Your task to perform on an android device: Find coffee shops on Maps Image 0: 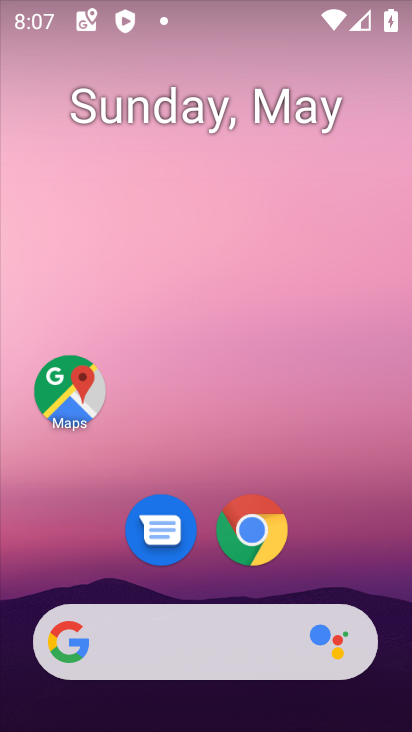
Step 0: click (62, 397)
Your task to perform on an android device: Find coffee shops on Maps Image 1: 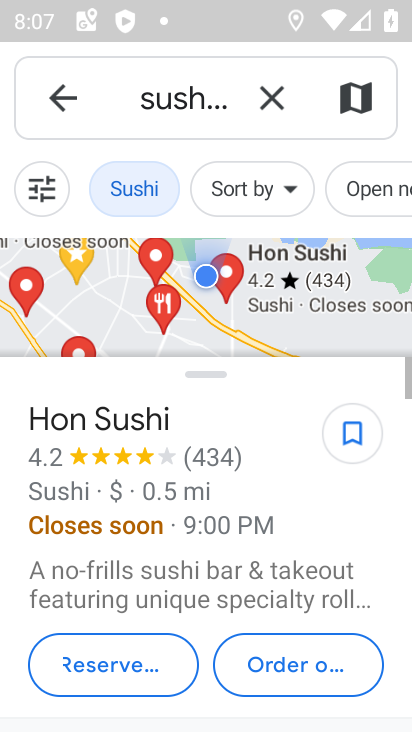
Step 1: click (267, 92)
Your task to perform on an android device: Find coffee shops on Maps Image 2: 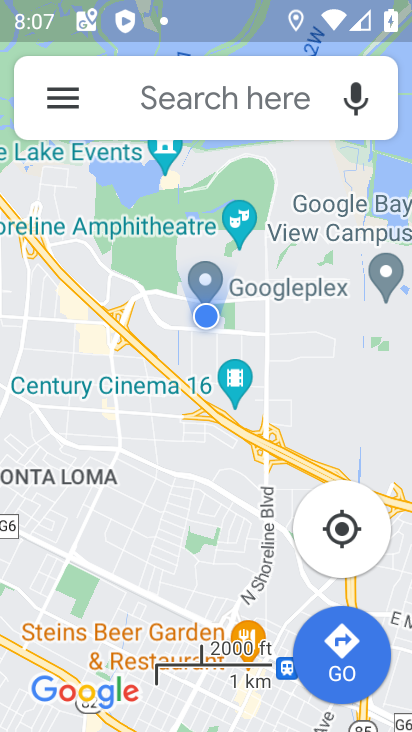
Step 2: click (137, 98)
Your task to perform on an android device: Find coffee shops on Maps Image 3: 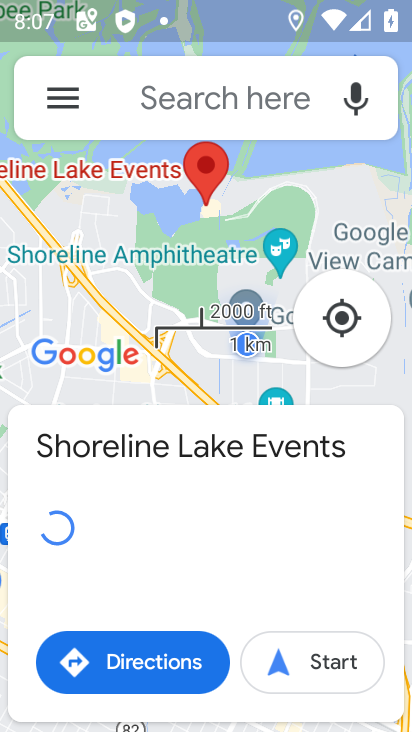
Step 3: click (167, 104)
Your task to perform on an android device: Find coffee shops on Maps Image 4: 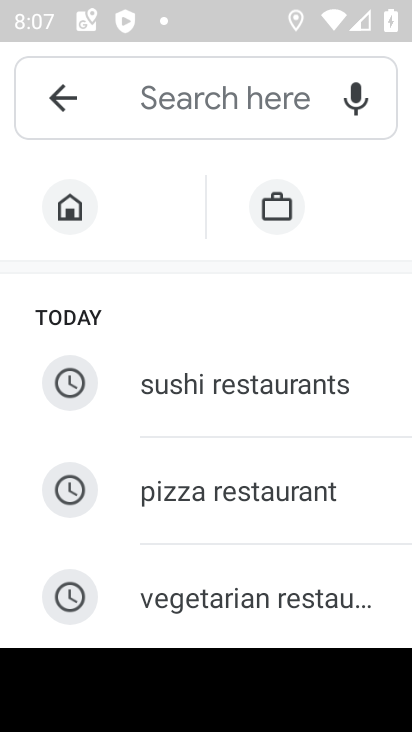
Step 4: type "coffee shops"
Your task to perform on an android device: Find coffee shops on Maps Image 5: 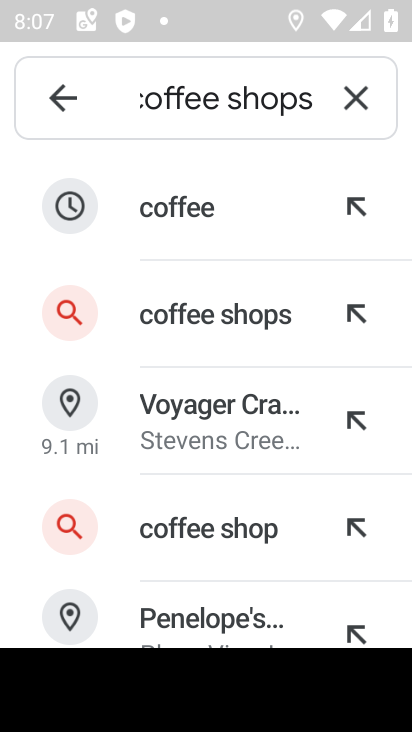
Step 5: click (195, 316)
Your task to perform on an android device: Find coffee shops on Maps Image 6: 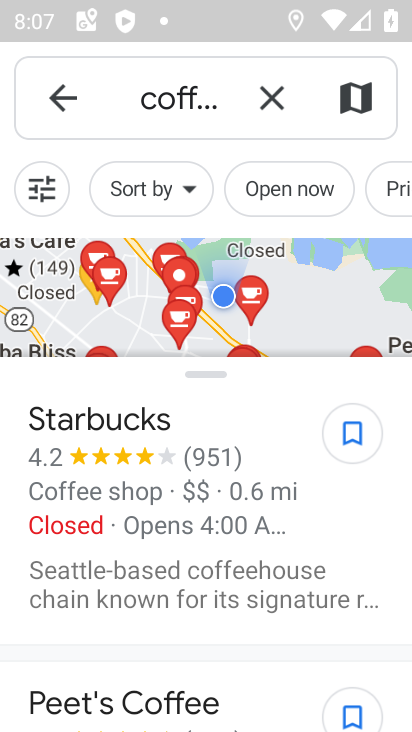
Step 6: task complete